Your task to perform on an android device: delete browsing data in the chrome app Image 0: 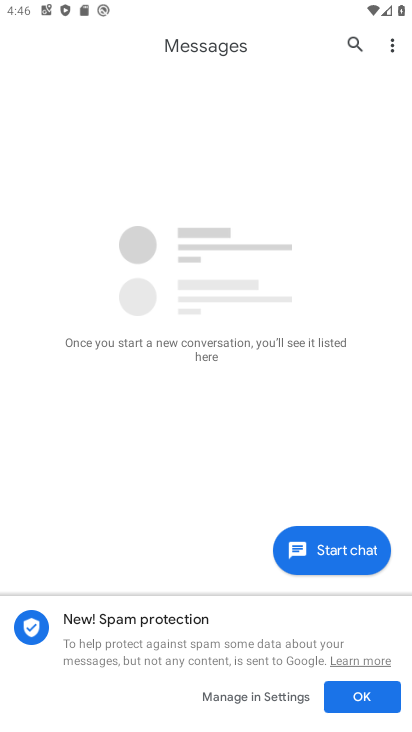
Step 0: press home button
Your task to perform on an android device: delete browsing data in the chrome app Image 1: 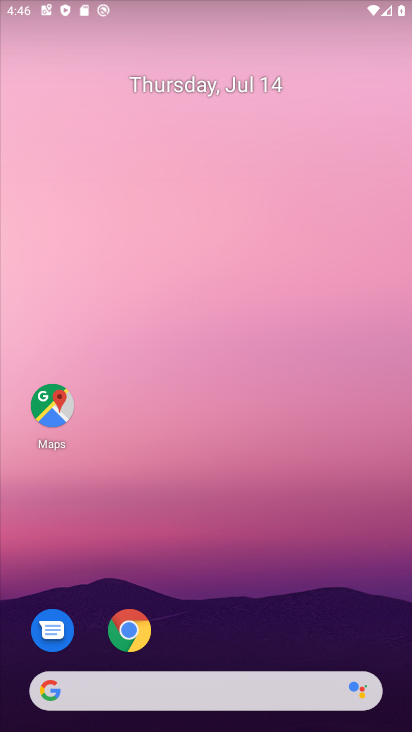
Step 1: drag from (303, 564) to (304, 98)
Your task to perform on an android device: delete browsing data in the chrome app Image 2: 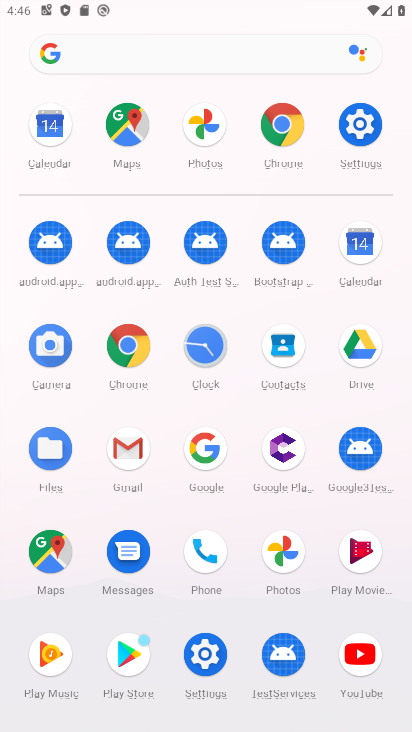
Step 2: click (127, 338)
Your task to perform on an android device: delete browsing data in the chrome app Image 3: 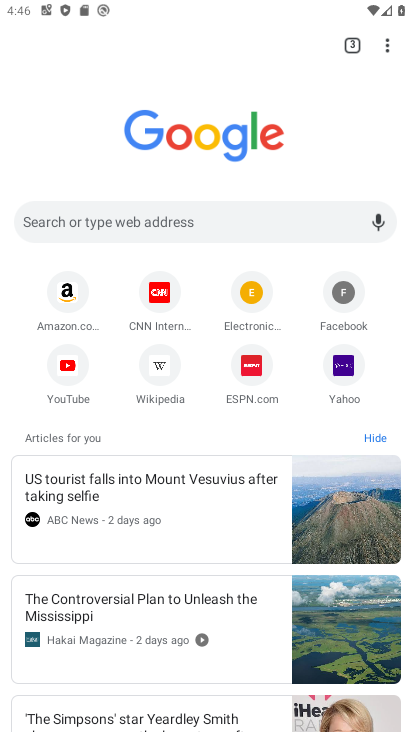
Step 3: click (388, 46)
Your task to perform on an android device: delete browsing data in the chrome app Image 4: 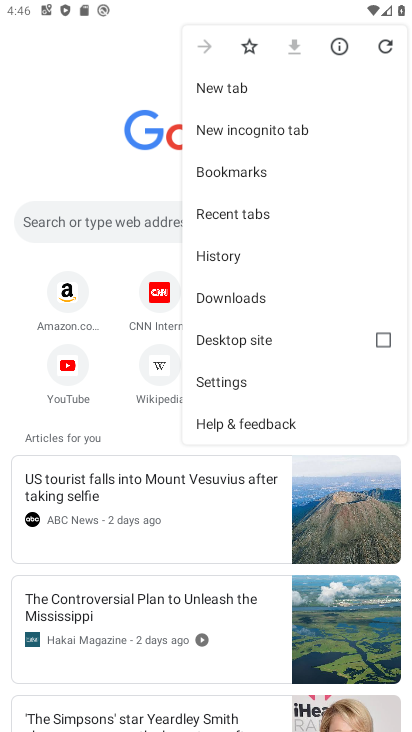
Step 4: click (256, 384)
Your task to perform on an android device: delete browsing data in the chrome app Image 5: 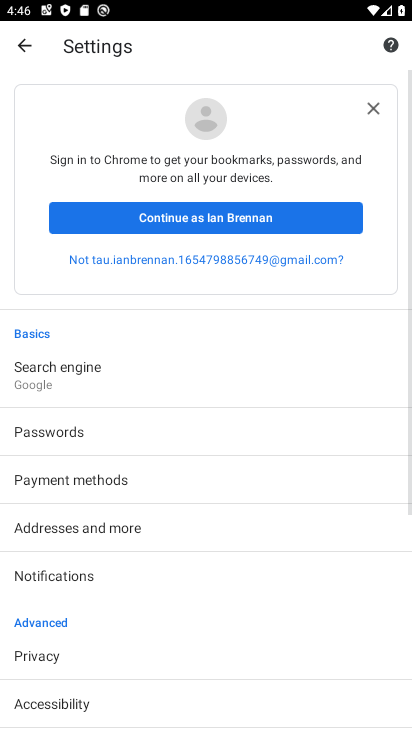
Step 5: click (80, 663)
Your task to perform on an android device: delete browsing data in the chrome app Image 6: 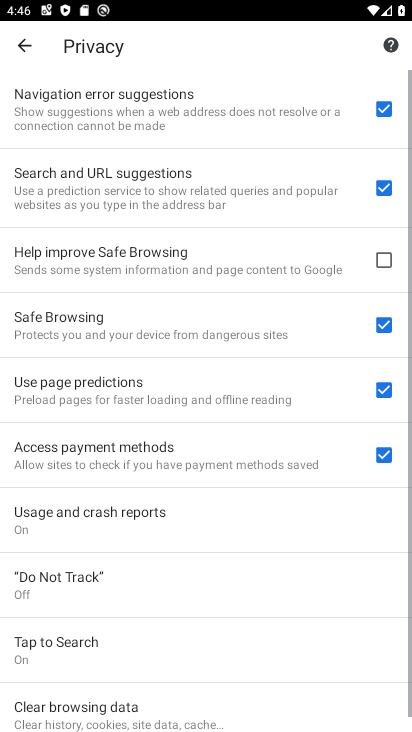
Step 6: drag from (254, 635) to (319, 117)
Your task to perform on an android device: delete browsing data in the chrome app Image 7: 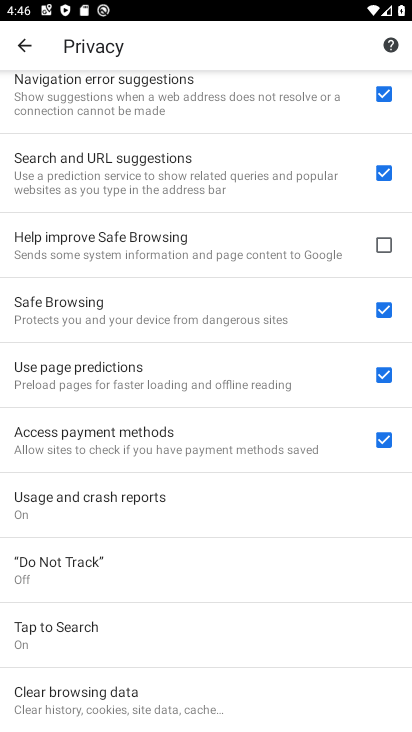
Step 7: click (171, 695)
Your task to perform on an android device: delete browsing data in the chrome app Image 8: 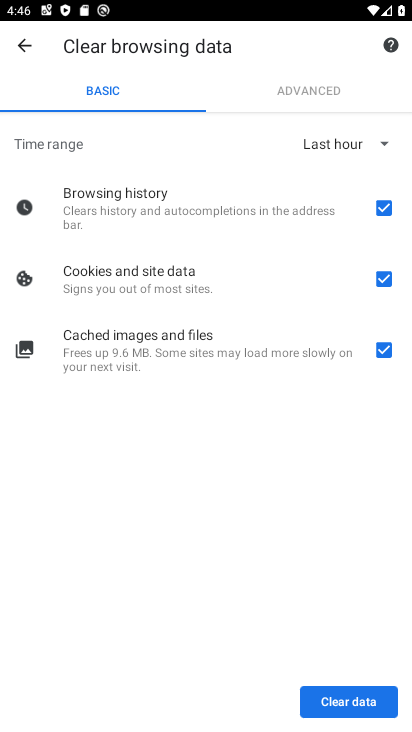
Step 8: click (336, 688)
Your task to perform on an android device: delete browsing data in the chrome app Image 9: 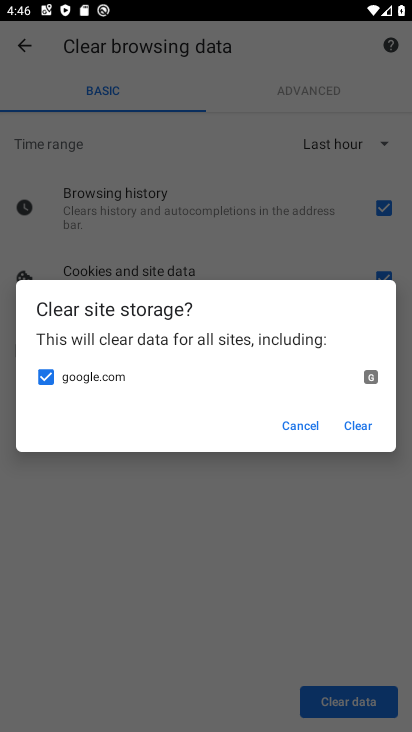
Step 9: click (352, 425)
Your task to perform on an android device: delete browsing data in the chrome app Image 10: 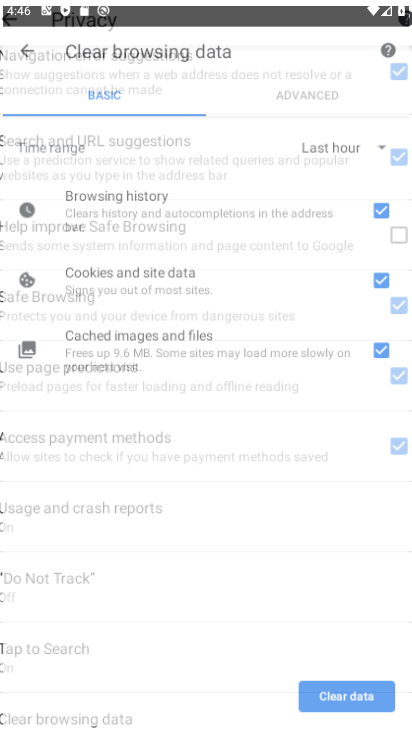
Step 10: task complete